Your task to perform on an android device: allow cookies in the chrome app Image 0: 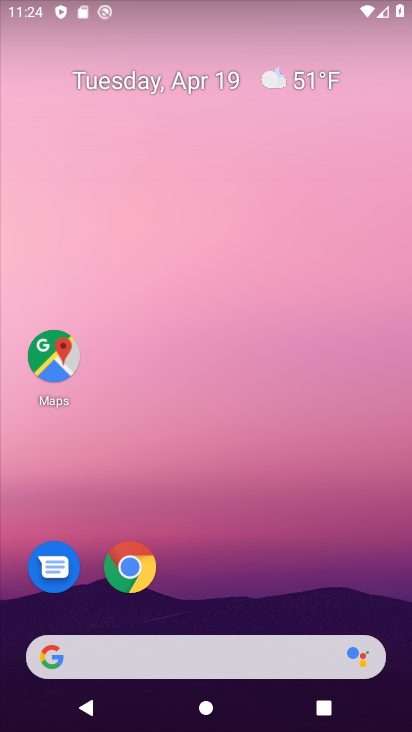
Step 0: click (114, 586)
Your task to perform on an android device: allow cookies in the chrome app Image 1: 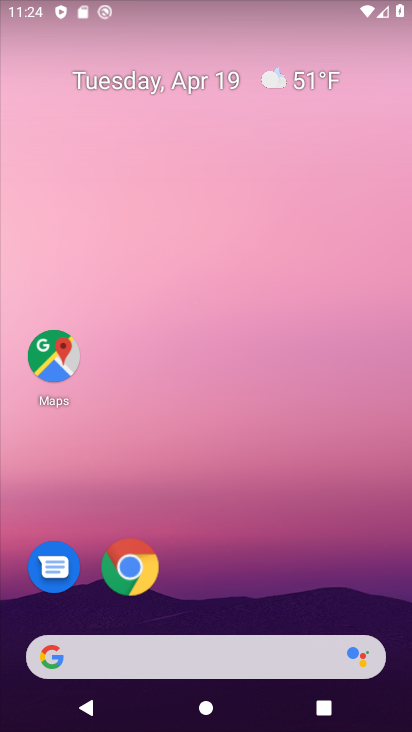
Step 1: click (132, 571)
Your task to perform on an android device: allow cookies in the chrome app Image 2: 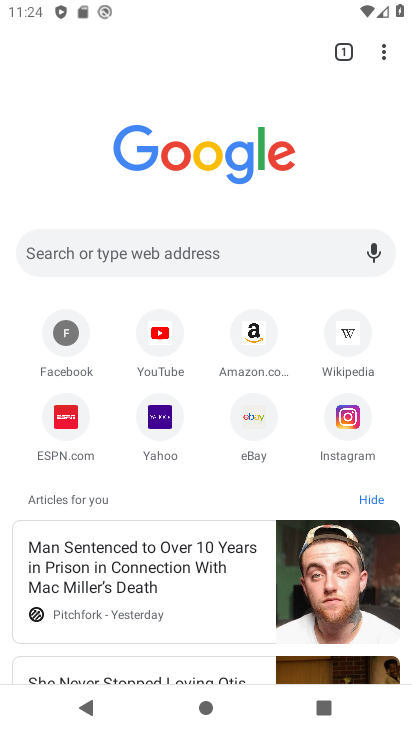
Step 2: click (389, 54)
Your task to perform on an android device: allow cookies in the chrome app Image 3: 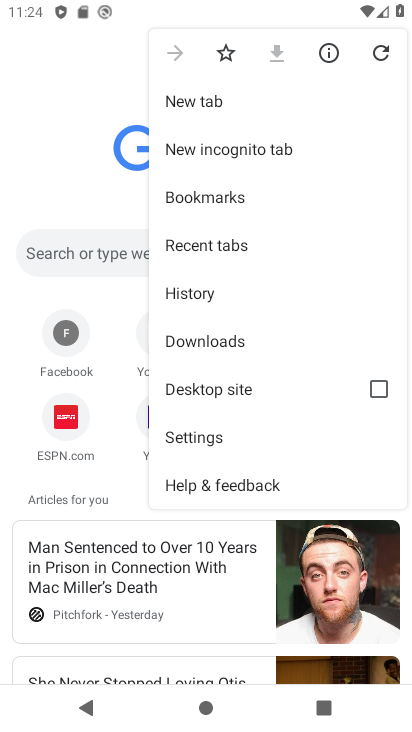
Step 3: click (192, 433)
Your task to perform on an android device: allow cookies in the chrome app Image 4: 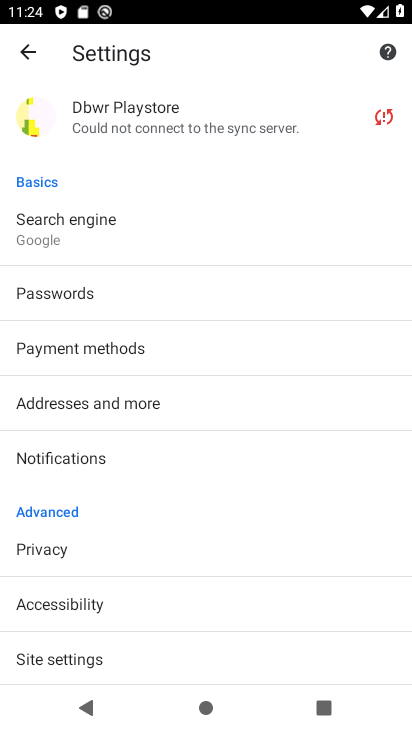
Step 4: click (69, 659)
Your task to perform on an android device: allow cookies in the chrome app Image 5: 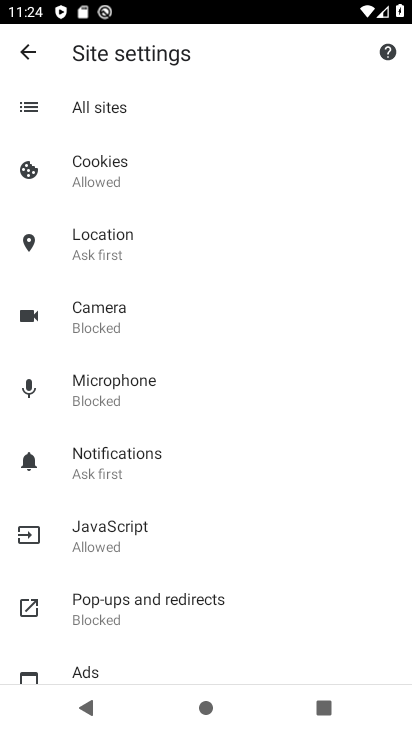
Step 5: click (118, 171)
Your task to perform on an android device: allow cookies in the chrome app Image 6: 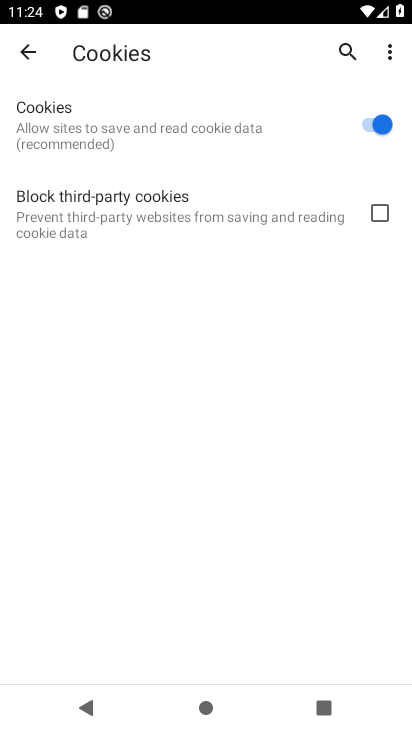
Step 6: task complete